Your task to perform on an android device: What is the news today? Image 0: 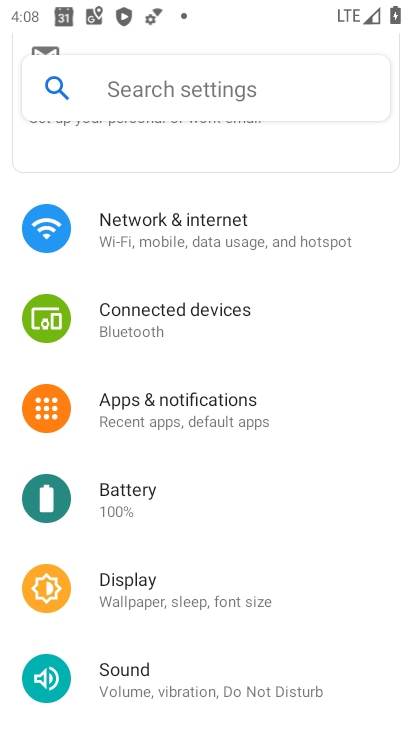
Step 0: press home button
Your task to perform on an android device: What is the news today? Image 1: 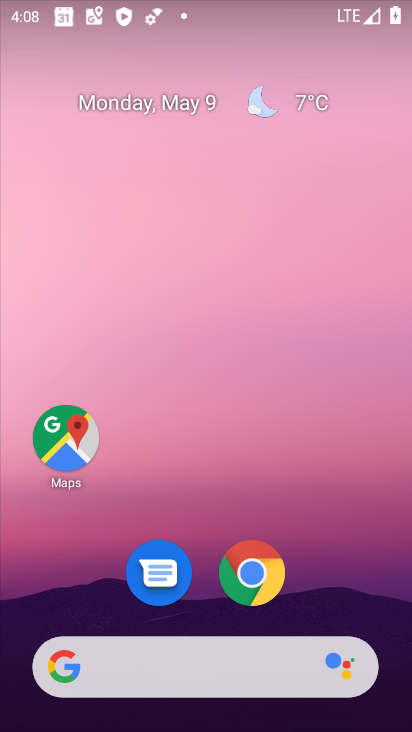
Step 1: task complete